Your task to perform on an android device: toggle improve location accuracy Image 0: 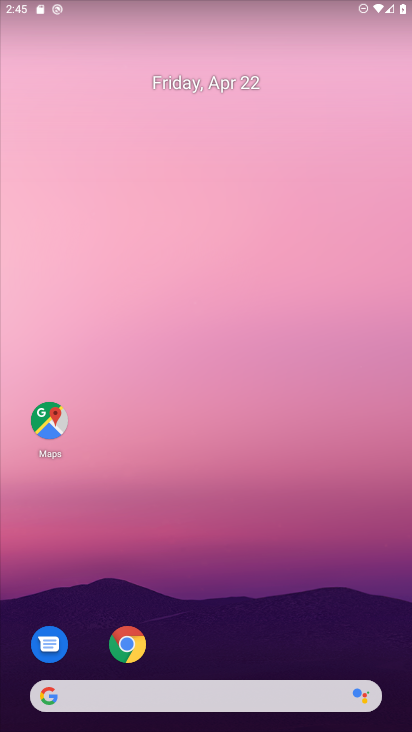
Step 0: drag from (280, 572) to (279, 72)
Your task to perform on an android device: toggle improve location accuracy Image 1: 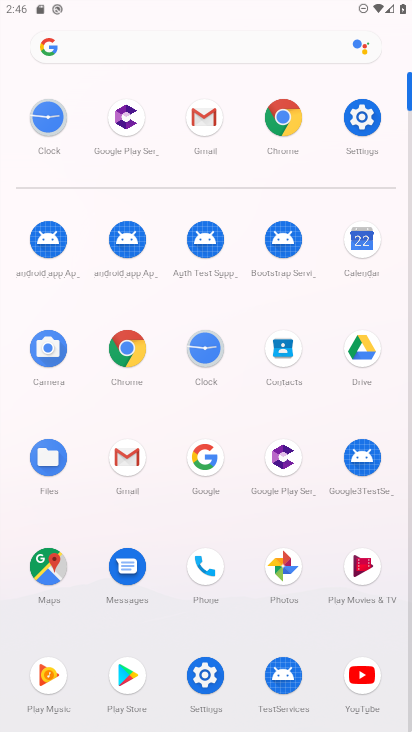
Step 1: click (358, 110)
Your task to perform on an android device: toggle improve location accuracy Image 2: 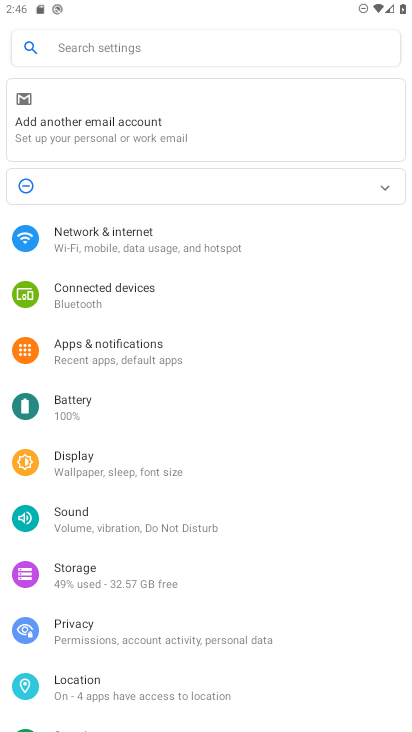
Step 2: drag from (142, 563) to (231, 325)
Your task to perform on an android device: toggle improve location accuracy Image 3: 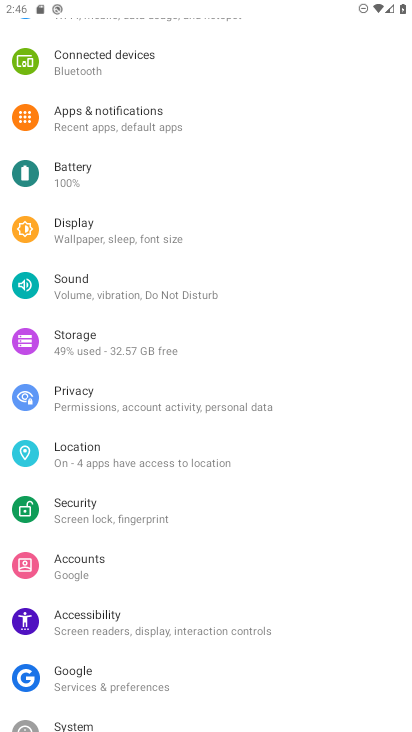
Step 3: click (69, 460)
Your task to perform on an android device: toggle improve location accuracy Image 4: 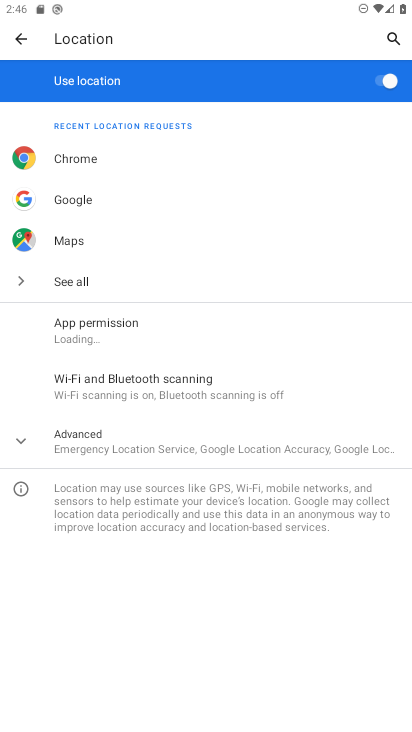
Step 4: click (86, 431)
Your task to perform on an android device: toggle improve location accuracy Image 5: 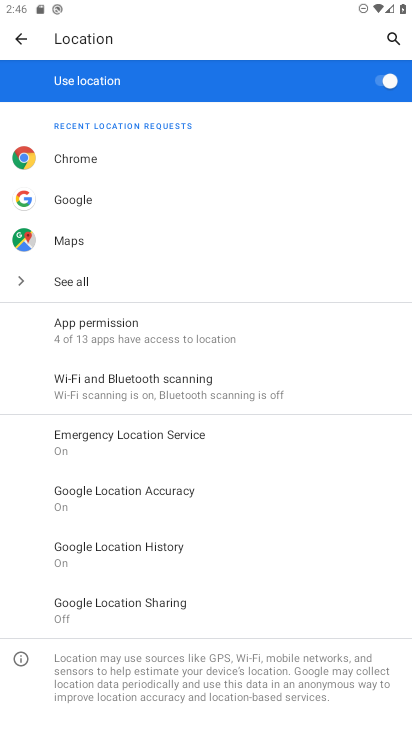
Step 5: click (140, 499)
Your task to perform on an android device: toggle improve location accuracy Image 6: 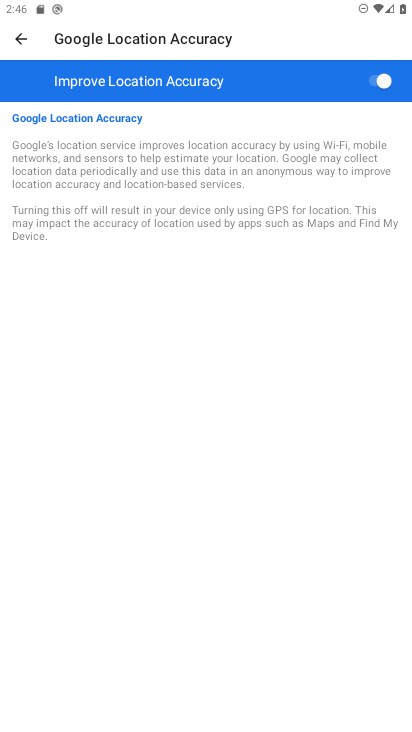
Step 6: task complete